Your task to perform on an android device: turn off wifi Image 0: 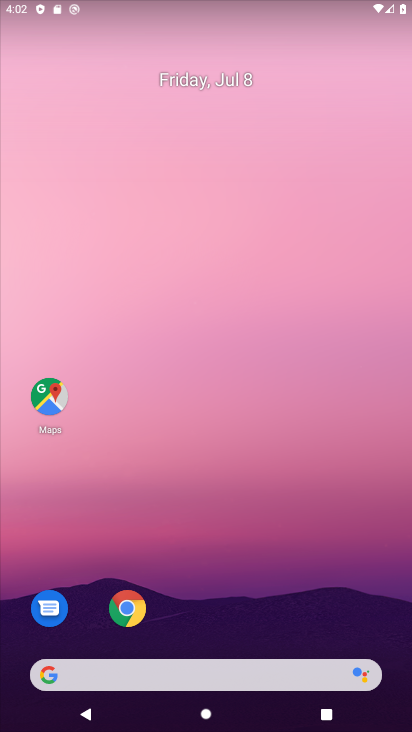
Step 0: drag from (230, 632) to (230, 0)
Your task to perform on an android device: turn off wifi Image 1: 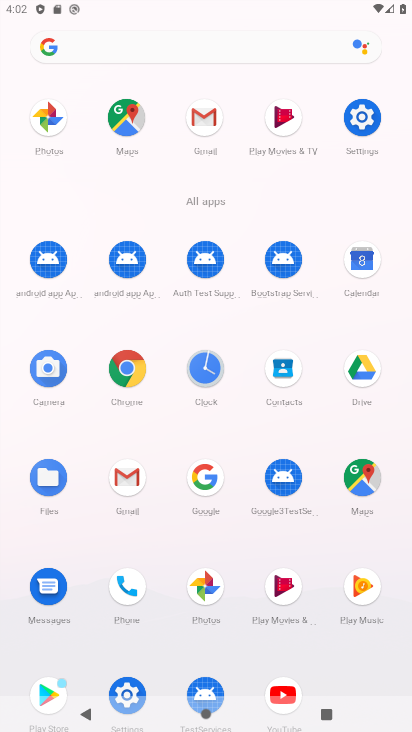
Step 1: click (361, 112)
Your task to perform on an android device: turn off wifi Image 2: 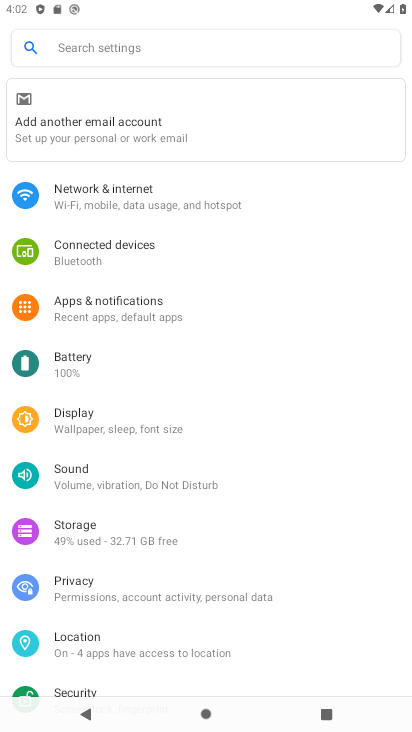
Step 2: click (121, 198)
Your task to perform on an android device: turn off wifi Image 3: 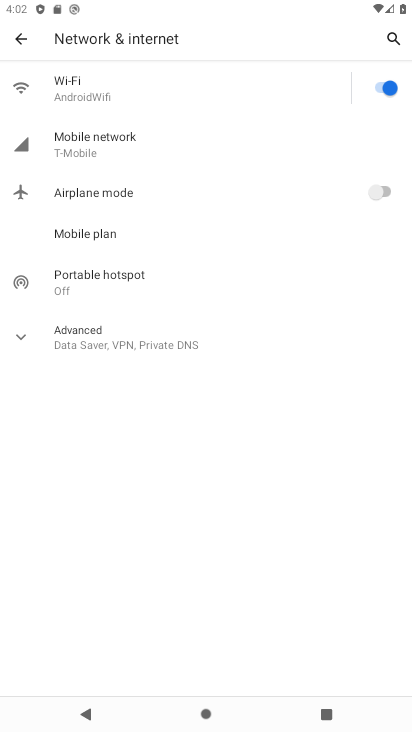
Step 3: click (375, 79)
Your task to perform on an android device: turn off wifi Image 4: 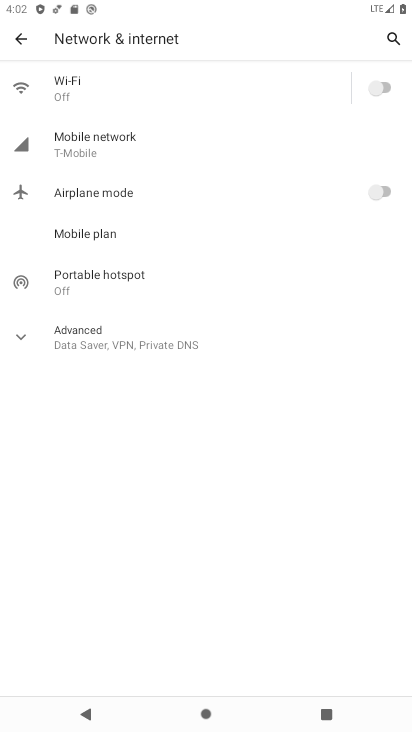
Step 4: task complete